Your task to perform on an android device: install app "Google Translate" Image 0: 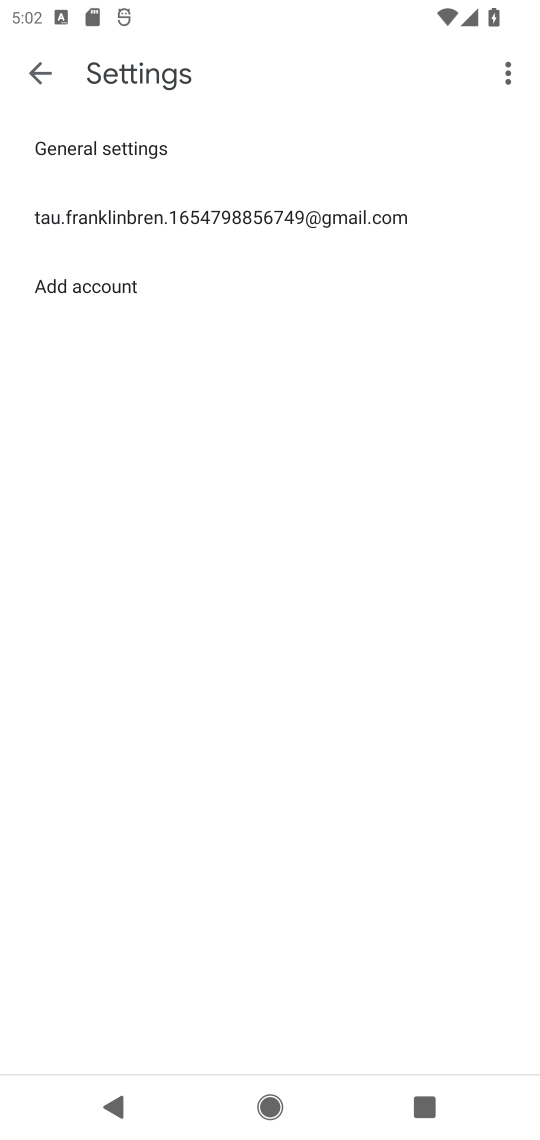
Step 0: press home button
Your task to perform on an android device: install app "Google Translate" Image 1: 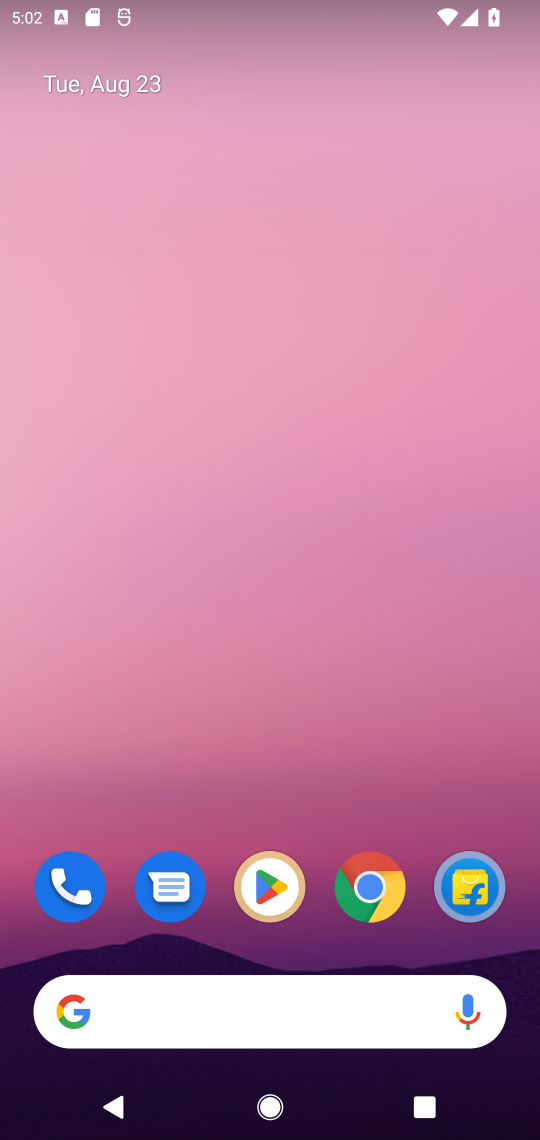
Step 1: click (268, 897)
Your task to perform on an android device: install app "Google Translate" Image 2: 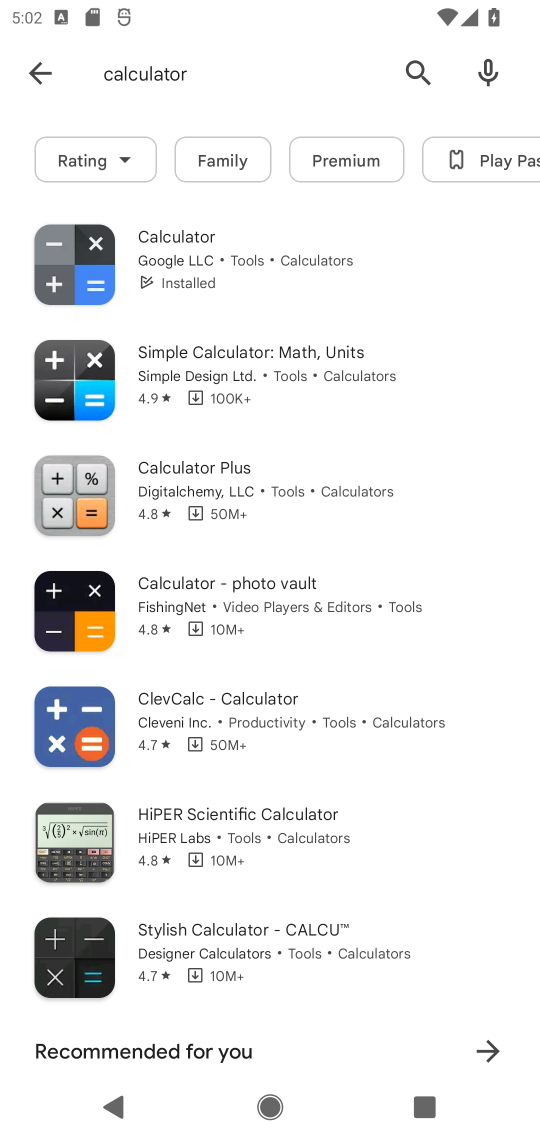
Step 2: click (28, 71)
Your task to perform on an android device: install app "Google Translate" Image 3: 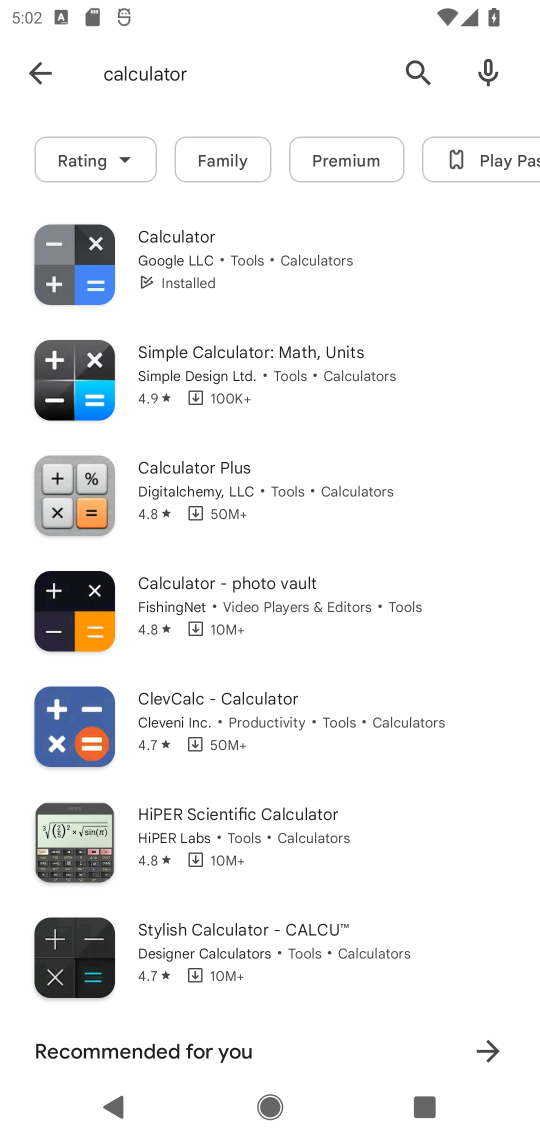
Step 3: click (36, 75)
Your task to perform on an android device: install app "Google Translate" Image 4: 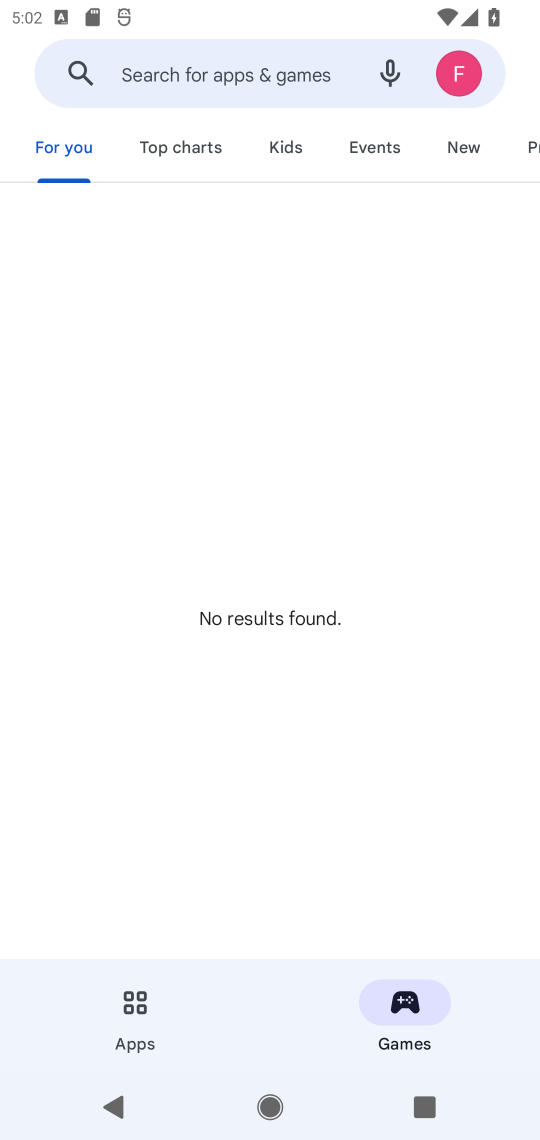
Step 4: type "Google Translate"
Your task to perform on an android device: install app "Google Translate" Image 5: 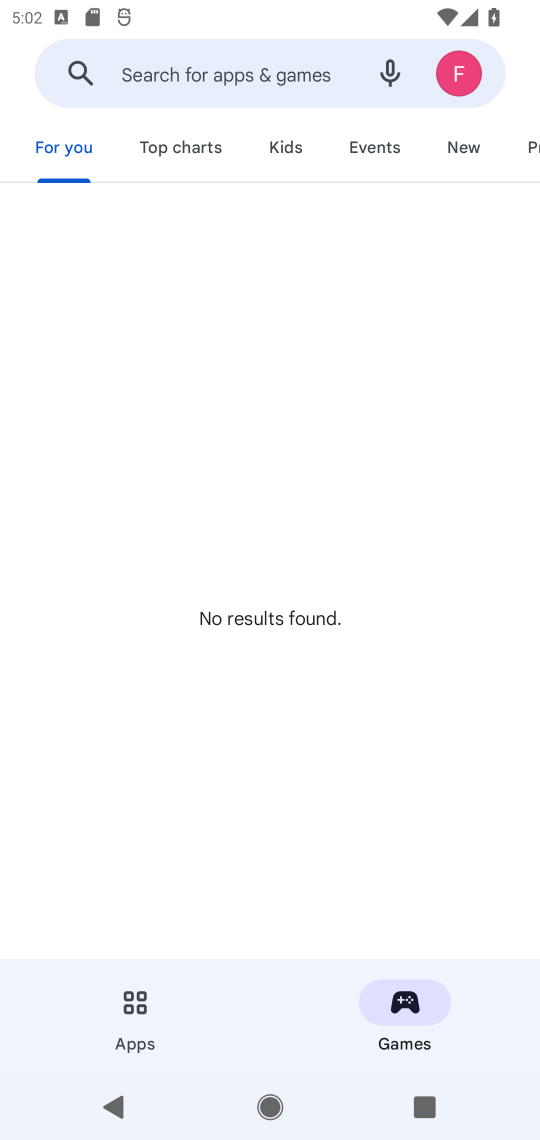
Step 5: click (211, 67)
Your task to perform on an android device: install app "Google Translate" Image 6: 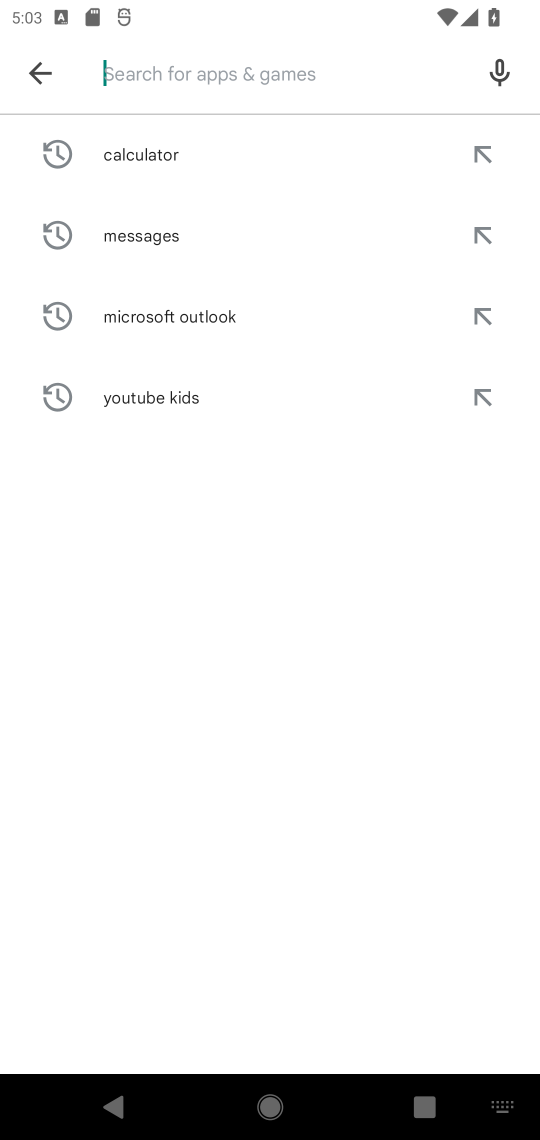
Step 6: type "Google Translate"
Your task to perform on an android device: install app "Google Translate" Image 7: 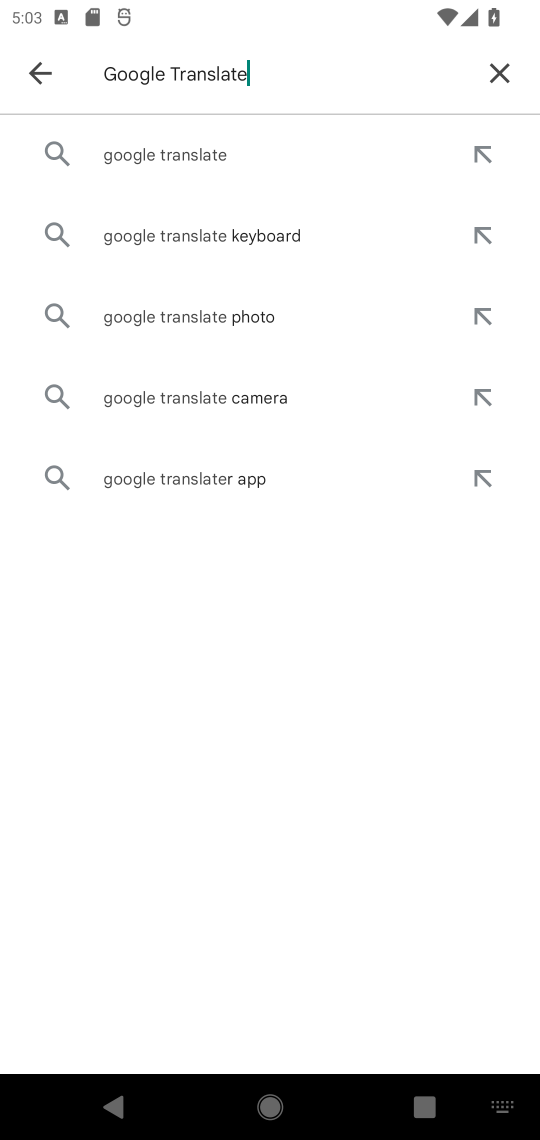
Step 7: click (211, 162)
Your task to perform on an android device: install app "Google Translate" Image 8: 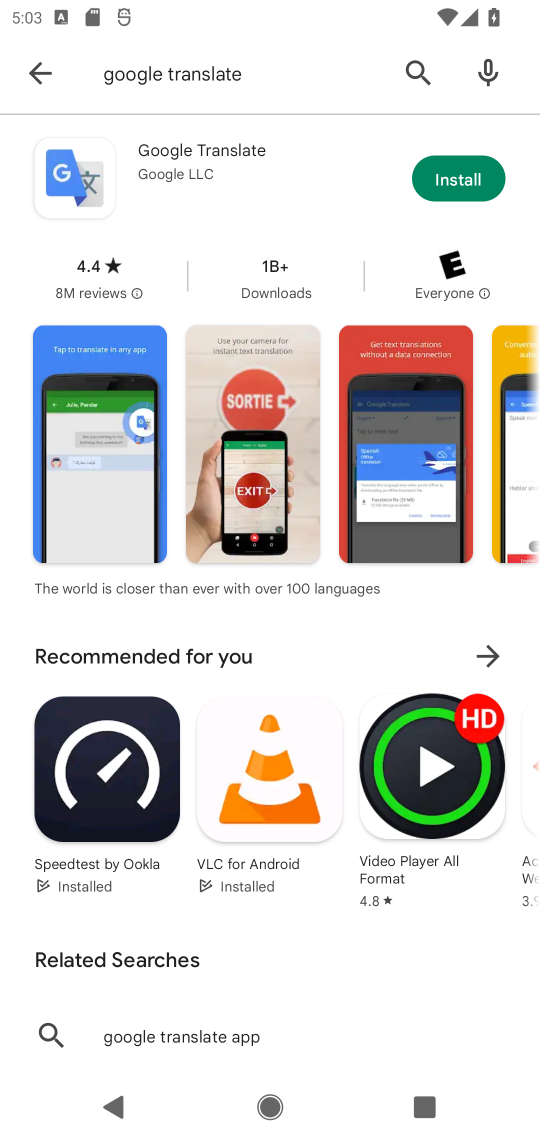
Step 8: click (441, 162)
Your task to perform on an android device: install app "Google Translate" Image 9: 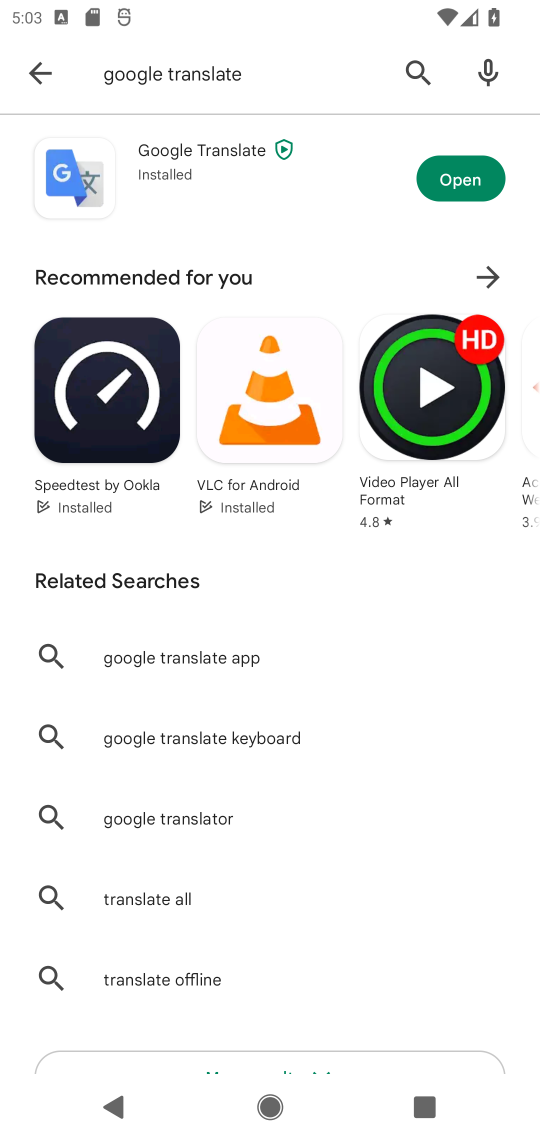
Step 9: click (447, 176)
Your task to perform on an android device: install app "Google Translate" Image 10: 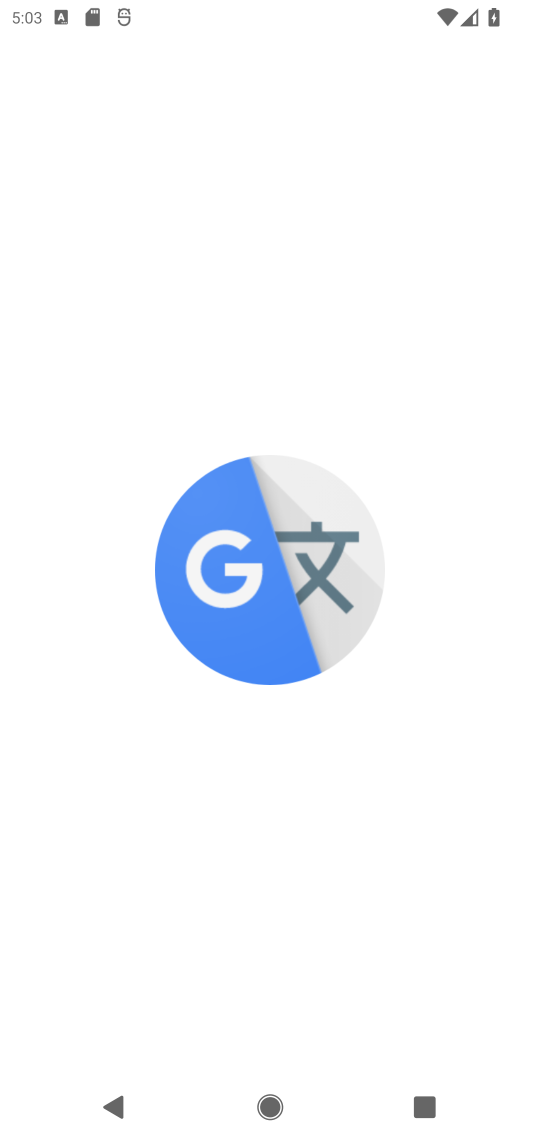
Step 10: task complete